Your task to perform on an android device: turn off javascript in the chrome app Image 0: 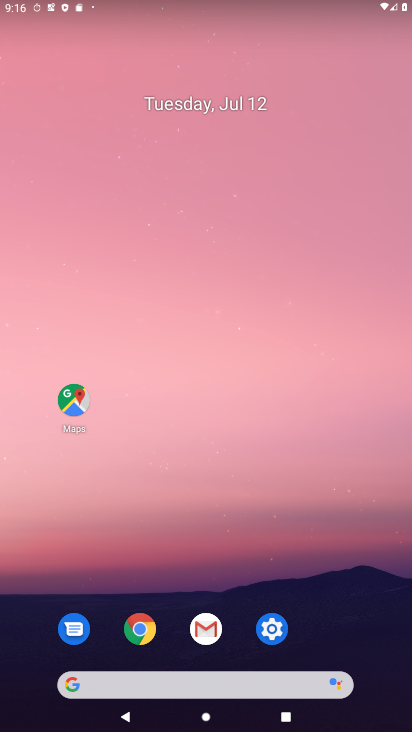
Step 0: click (146, 639)
Your task to perform on an android device: turn off javascript in the chrome app Image 1: 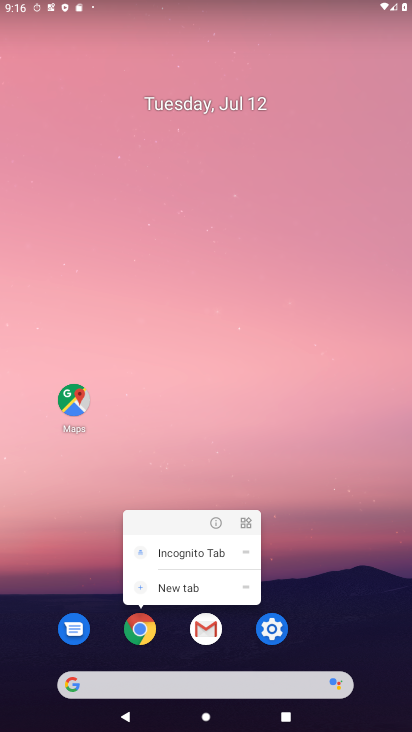
Step 1: click (146, 639)
Your task to perform on an android device: turn off javascript in the chrome app Image 2: 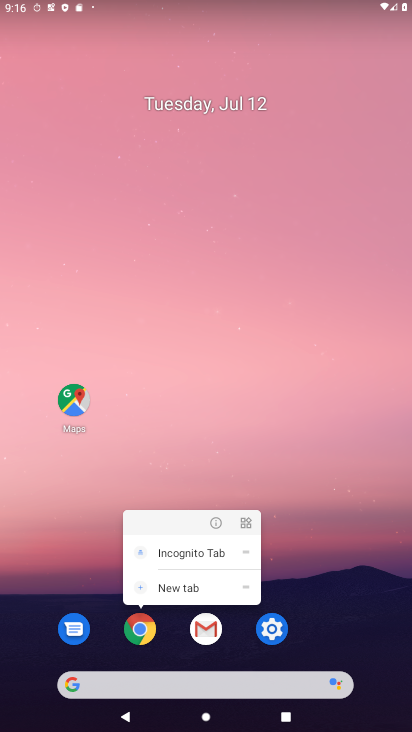
Step 2: click (141, 639)
Your task to perform on an android device: turn off javascript in the chrome app Image 3: 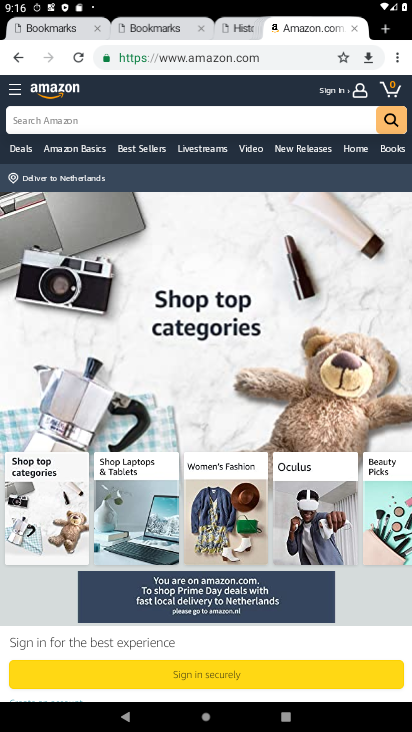
Step 3: click (396, 59)
Your task to perform on an android device: turn off javascript in the chrome app Image 4: 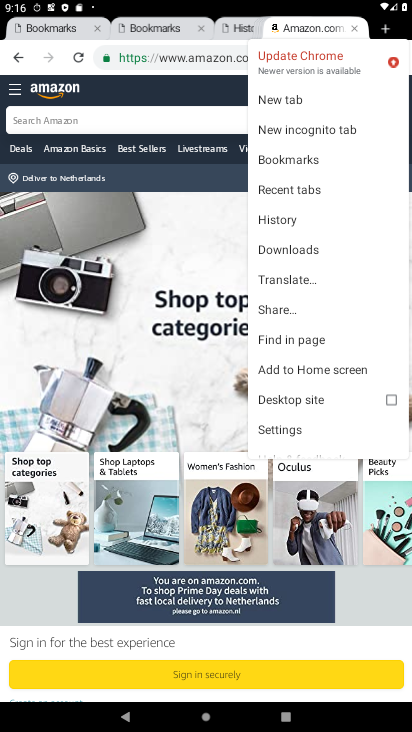
Step 4: click (298, 437)
Your task to perform on an android device: turn off javascript in the chrome app Image 5: 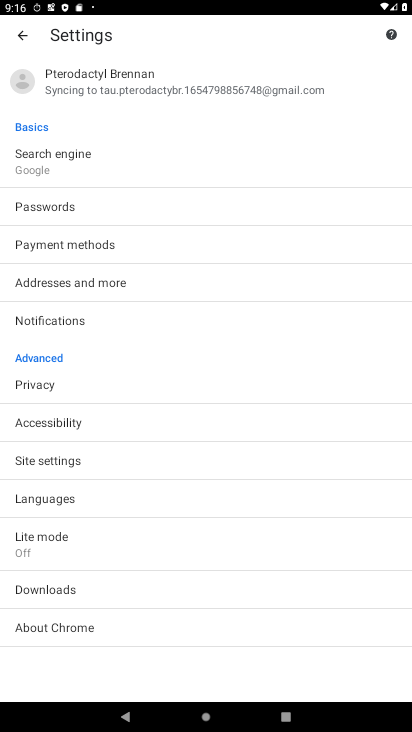
Step 5: click (89, 463)
Your task to perform on an android device: turn off javascript in the chrome app Image 6: 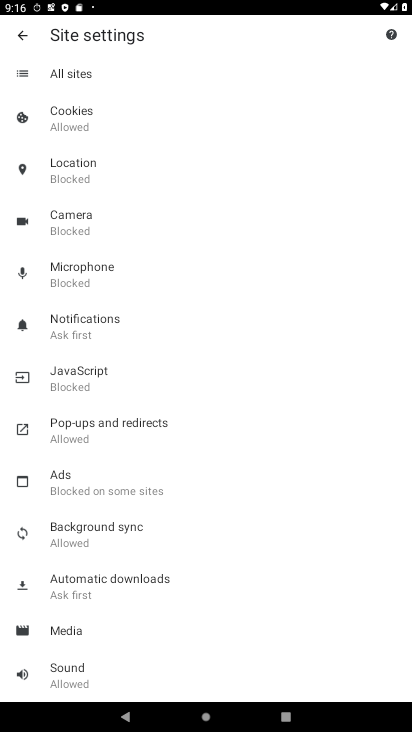
Step 6: click (100, 378)
Your task to perform on an android device: turn off javascript in the chrome app Image 7: 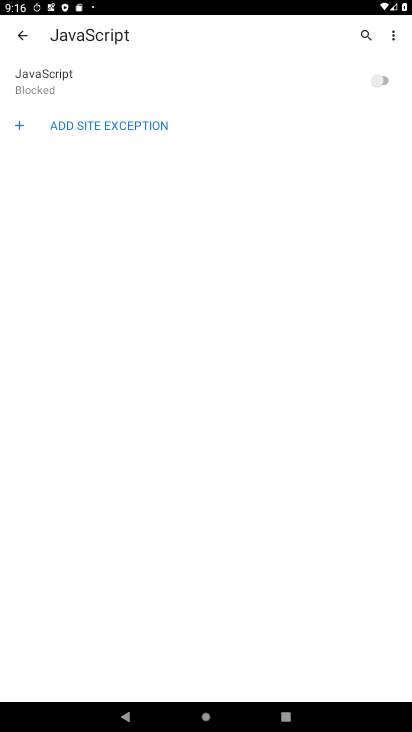
Step 7: click (378, 74)
Your task to perform on an android device: turn off javascript in the chrome app Image 8: 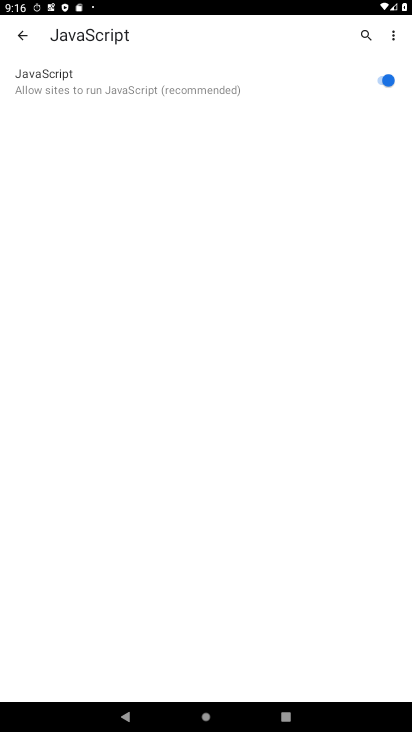
Step 8: click (374, 80)
Your task to perform on an android device: turn off javascript in the chrome app Image 9: 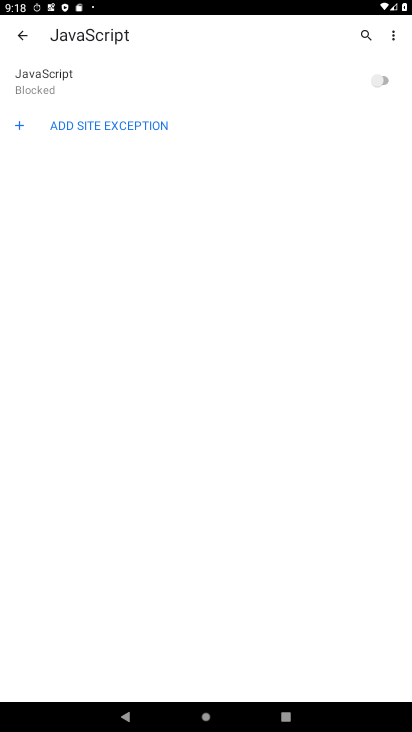
Step 9: task complete